Your task to perform on an android device: Open notification settings Image 0: 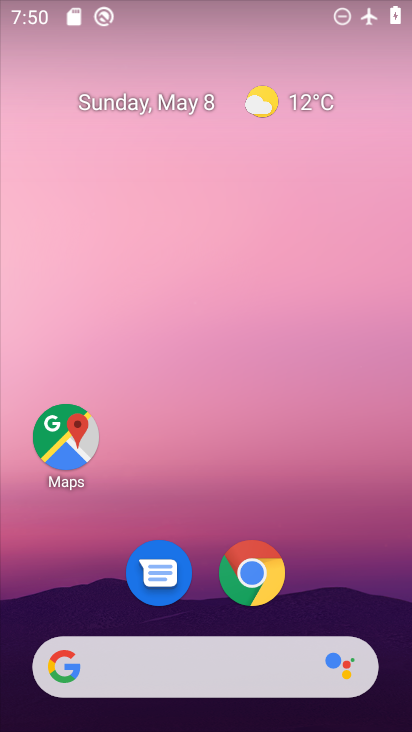
Step 0: drag from (334, 600) to (347, 7)
Your task to perform on an android device: Open notification settings Image 1: 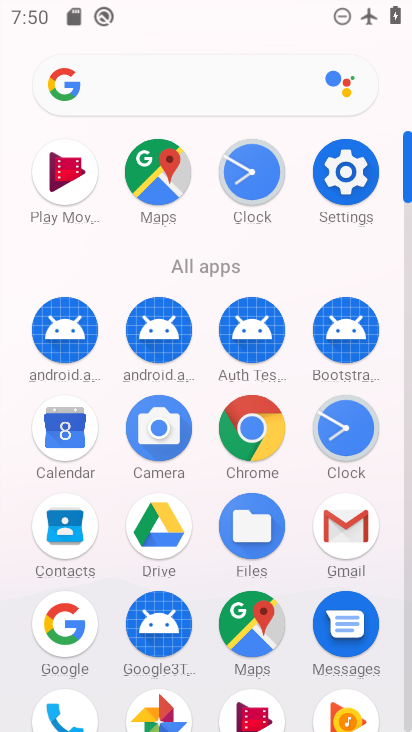
Step 1: click (347, 182)
Your task to perform on an android device: Open notification settings Image 2: 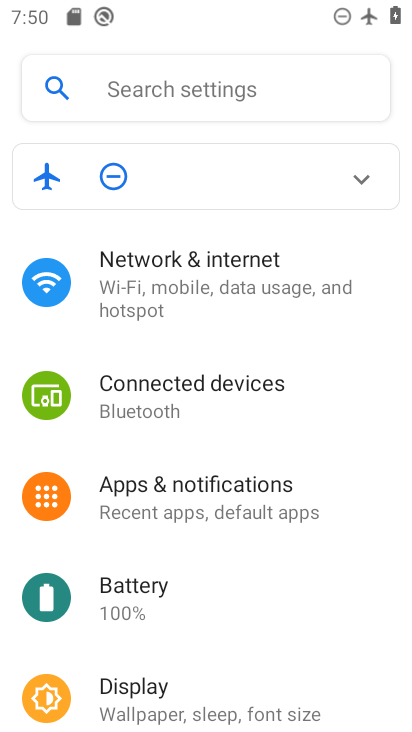
Step 2: click (238, 506)
Your task to perform on an android device: Open notification settings Image 3: 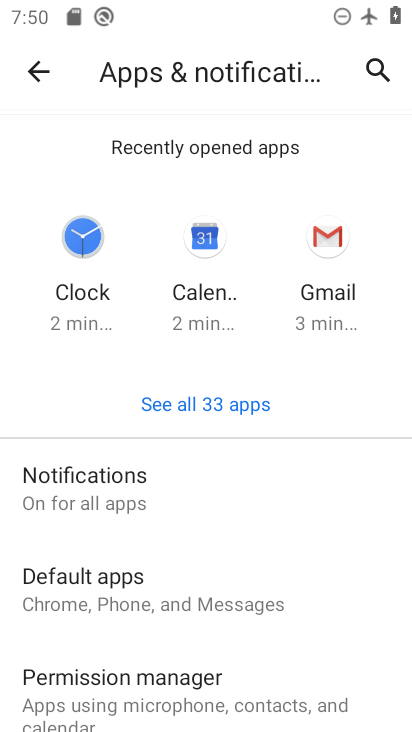
Step 3: task complete